Your task to perform on an android device: turn off data saver in the chrome app Image 0: 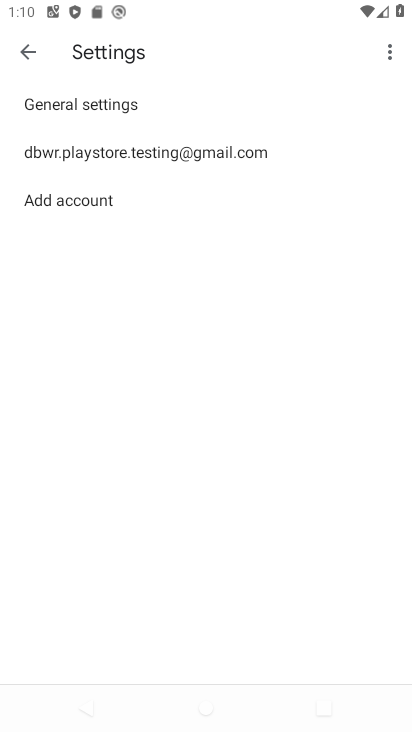
Step 0: press back button
Your task to perform on an android device: turn off data saver in the chrome app Image 1: 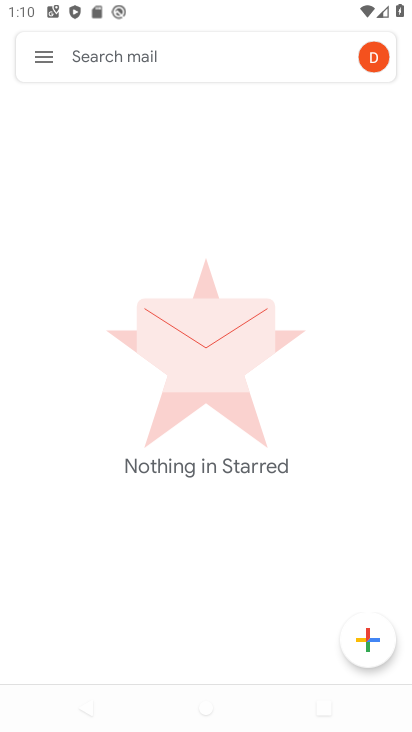
Step 1: press home button
Your task to perform on an android device: turn off data saver in the chrome app Image 2: 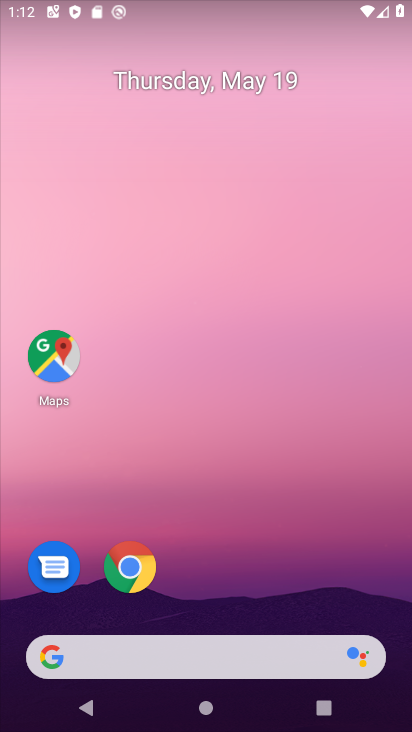
Step 2: drag from (89, 486) to (265, 173)
Your task to perform on an android device: turn off data saver in the chrome app Image 3: 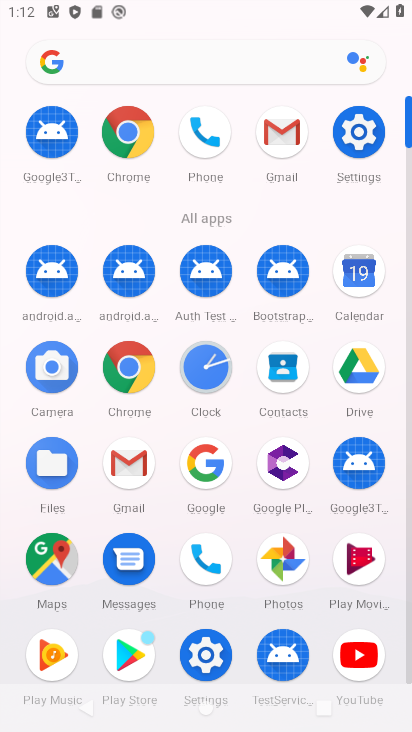
Step 3: click (371, 140)
Your task to perform on an android device: turn off data saver in the chrome app Image 4: 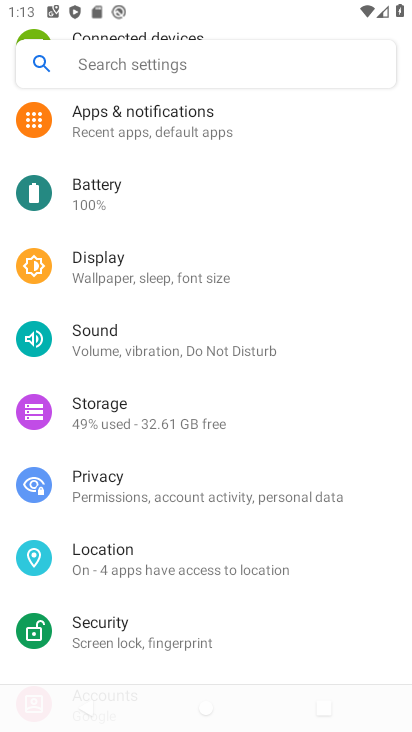
Step 4: press home button
Your task to perform on an android device: turn off data saver in the chrome app Image 5: 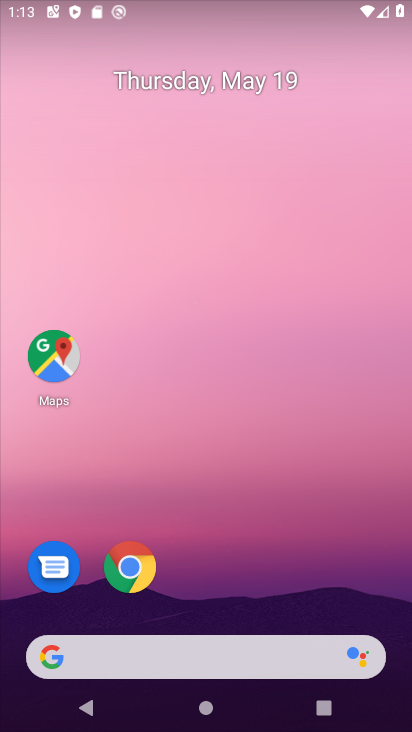
Step 5: drag from (48, 515) to (220, 48)
Your task to perform on an android device: turn off data saver in the chrome app Image 6: 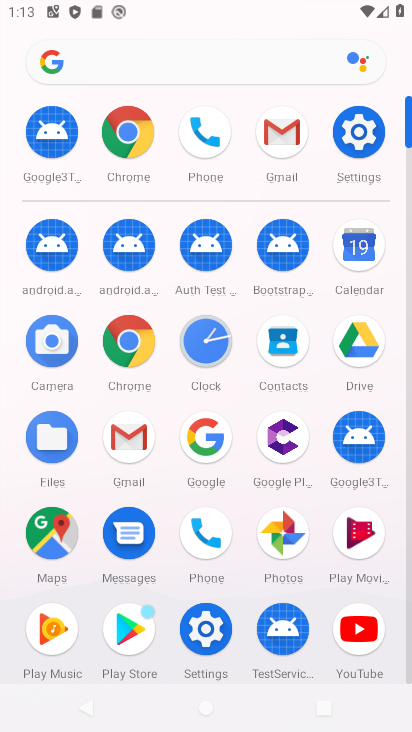
Step 6: click (110, 337)
Your task to perform on an android device: turn off data saver in the chrome app Image 7: 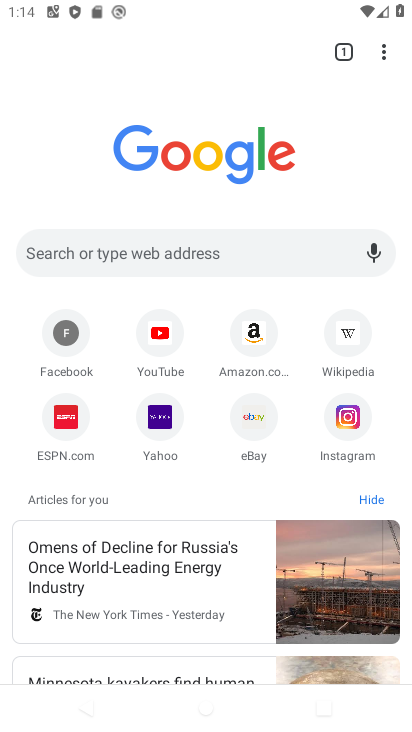
Step 7: click (379, 61)
Your task to perform on an android device: turn off data saver in the chrome app Image 8: 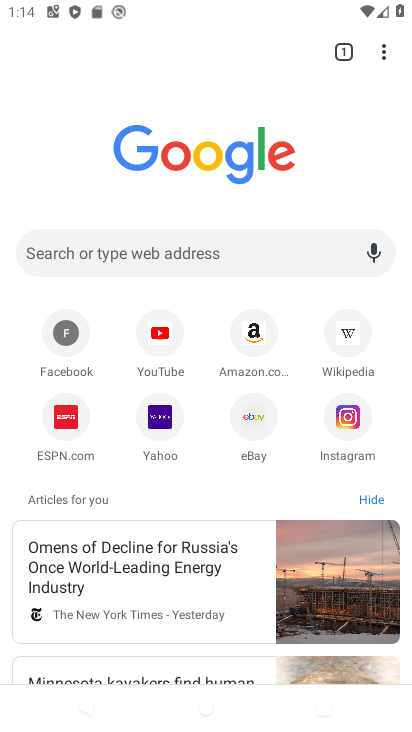
Step 8: click (380, 49)
Your task to perform on an android device: turn off data saver in the chrome app Image 9: 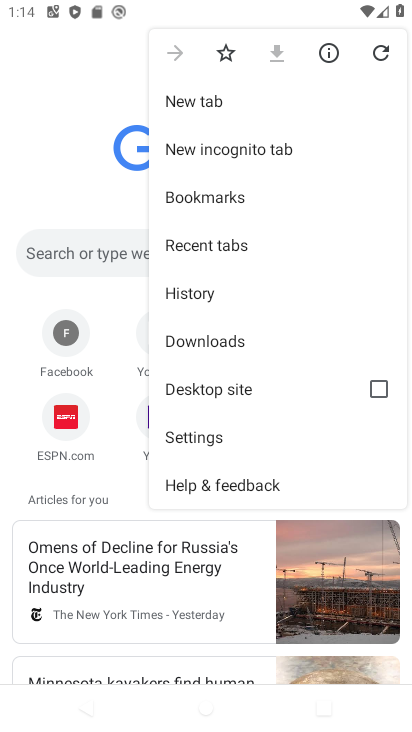
Step 9: click (218, 444)
Your task to perform on an android device: turn off data saver in the chrome app Image 10: 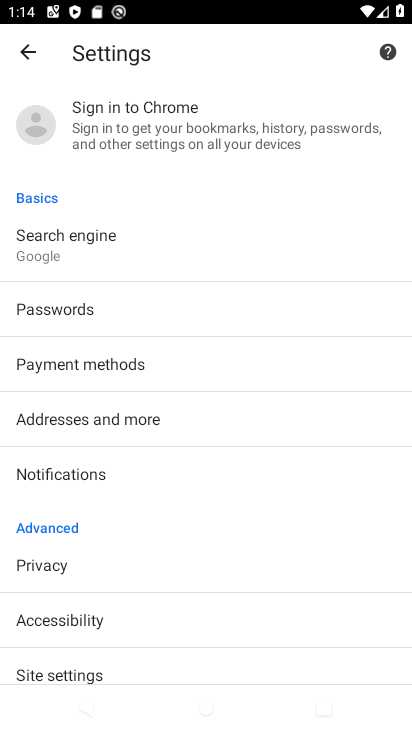
Step 10: drag from (24, 525) to (157, 205)
Your task to perform on an android device: turn off data saver in the chrome app Image 11: 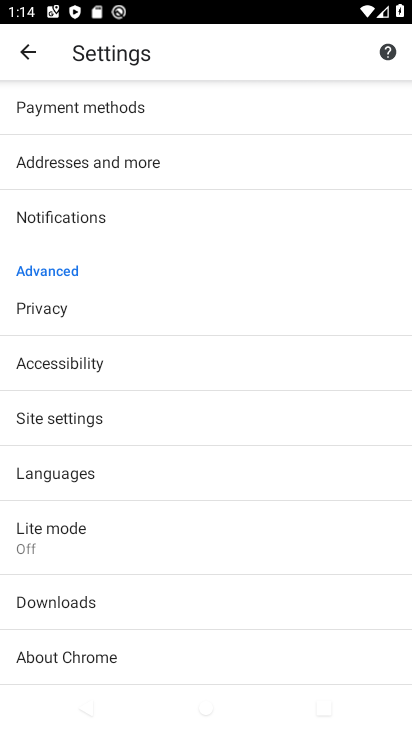
Step 11: drag from (19, 532) to (107, 286)
Your task to perform on an android device: turn off data saver in the chrome app Image 12: 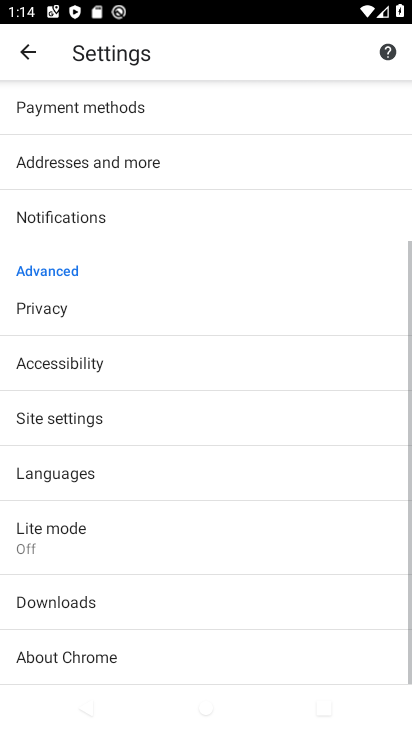
Step 12: click (91, 414)
Your task to perform on an android device: turn off data saver in the chrome app Image 13: 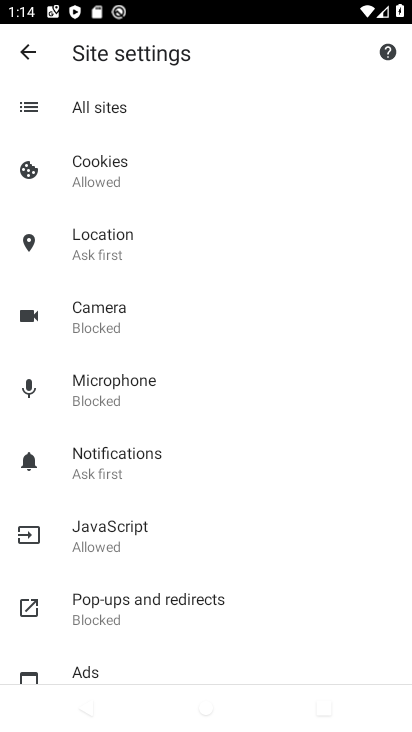
Step 13: drag from (8, 693) to (195, 185)
Your task to perform on an android device: turn off data saver in the chrome app Image 14: 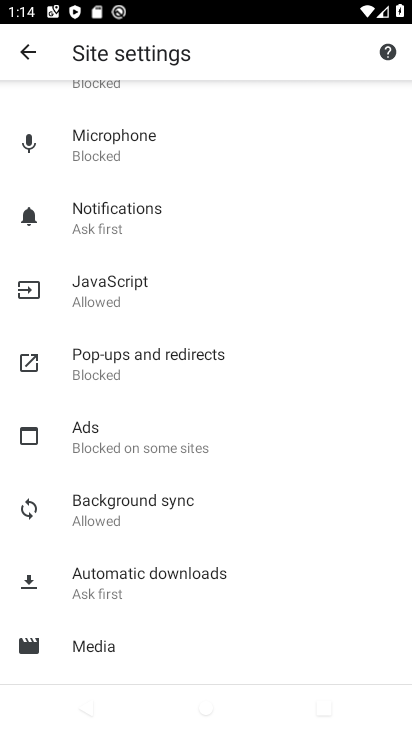
Step 14: drag from (33, 591) to (220, 194)
Your task to perform on an android device: turn off data saver in the chrome app Image 15: 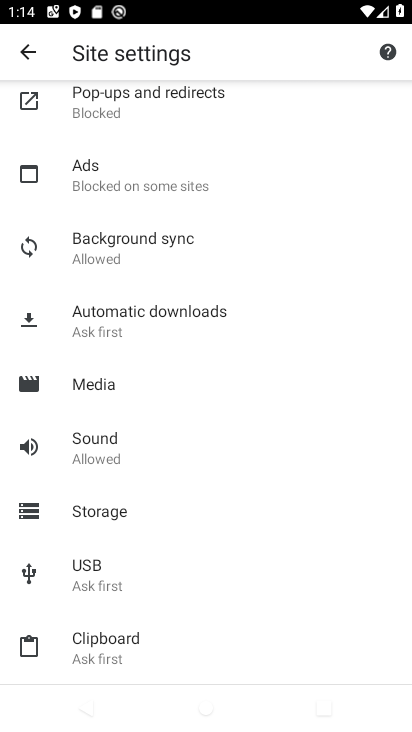
Step 15: press back button
Your task to perform on an android device: turn off data saver in the chrome app Image 16: 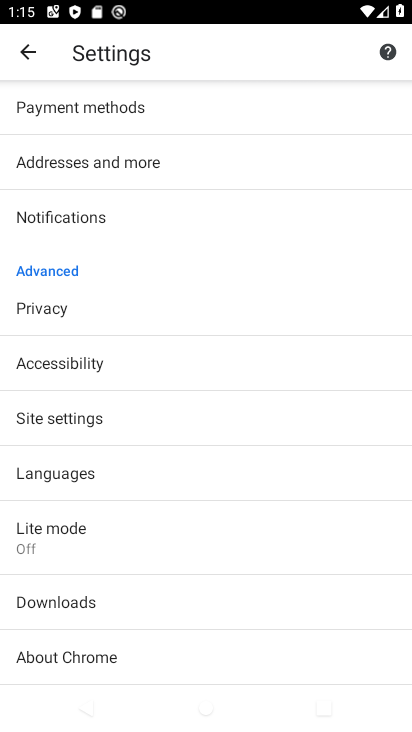
Step 16: press back button
Your task to perform on an android device: turn off data saver in the chrome app Image 17: 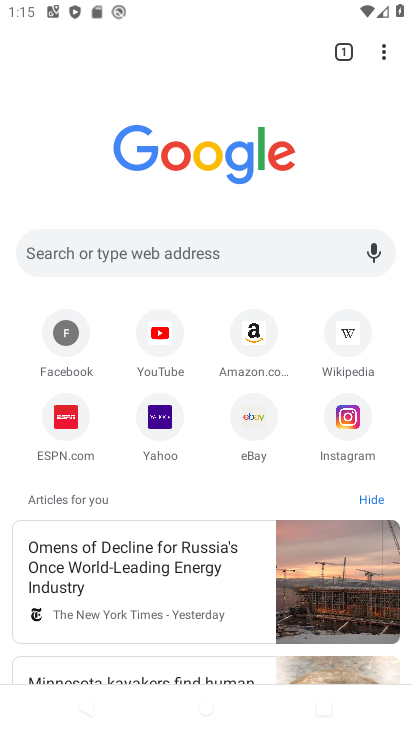
Step 17: click (381, 50)
Your task to perform on an android device: turn off data saver in the chrome app Image 18: 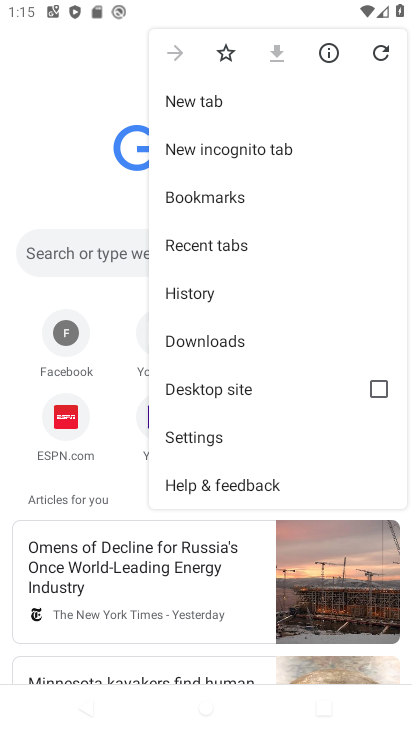
Step 18: click (173, 440)
Your task to perform on an android device: turn off data saver in the chrome app Image 19: 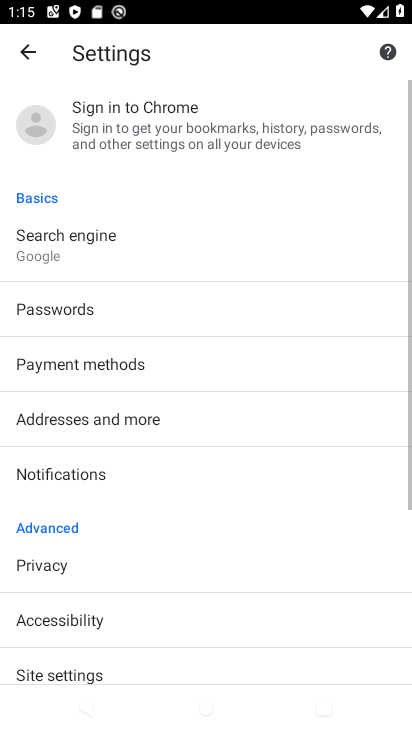
Step 19: drag from (35, 477) to (144, 212)
Your task to perform on an android device: turn off data saver in the chrome app Image 20: 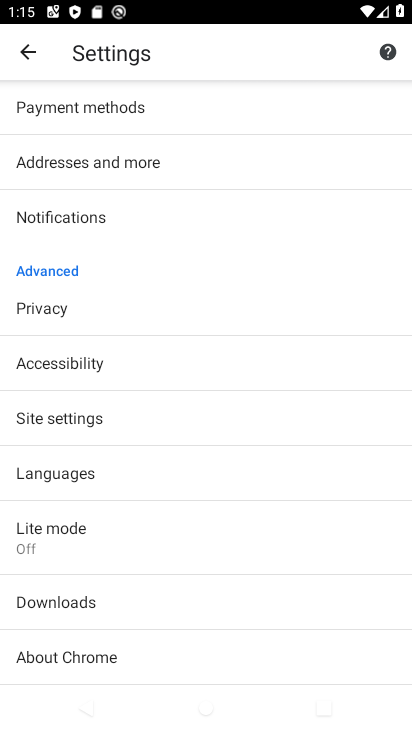
Step 20: click (49, 540)
Your task to perform on an android device: turn off data saver in the chrome app Image 21: 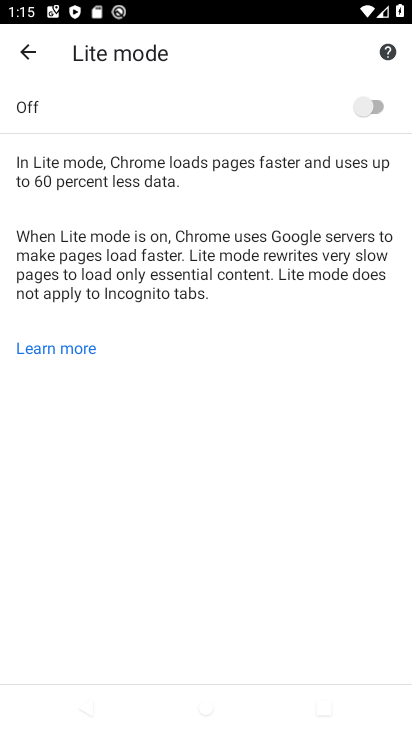
Step 21: task complete